Your task to perform on an android device: Open sound settings Image 0: 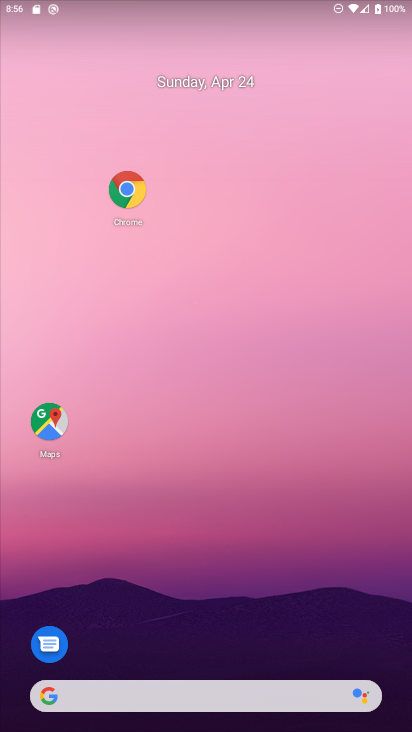
Step 0: drag from (180, 546) to (222, 171)
Your task to perform on an android device: Open sound settings Image 1: 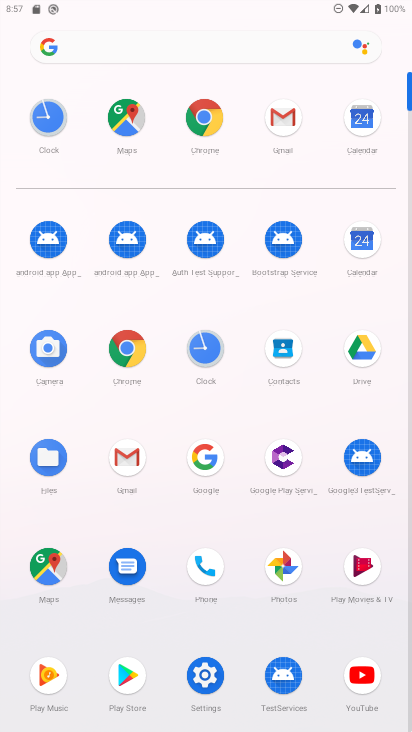
Step 1: click (205, 672)
Your task to perform on an android device: Open sound settings Image 2: 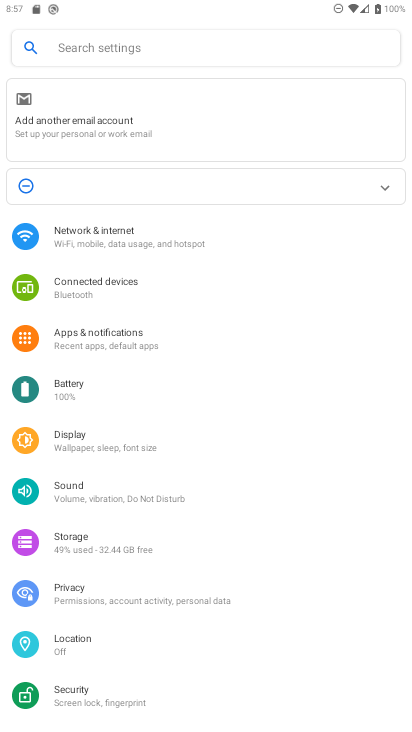
Step 2: click (130, 501)
Your task to perform on an android device: Open sound settings Image 3: 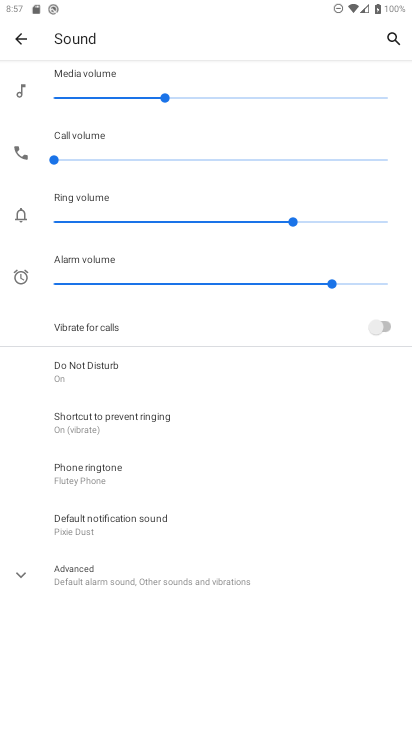
Step 3: task complete